Your task to perform on an android device: remove spam from my inbox in the gmail app Image 0: 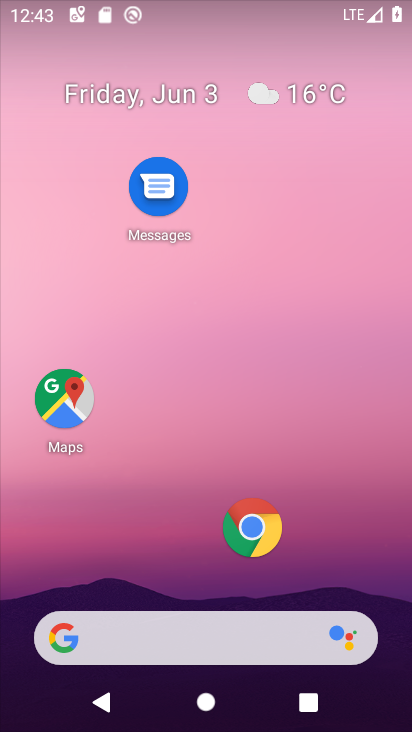
Step 0: drag from (194, 554) to (244, 101)
Your task to perform on an android device: remove spam from my inbox in the gmail app Image 1: 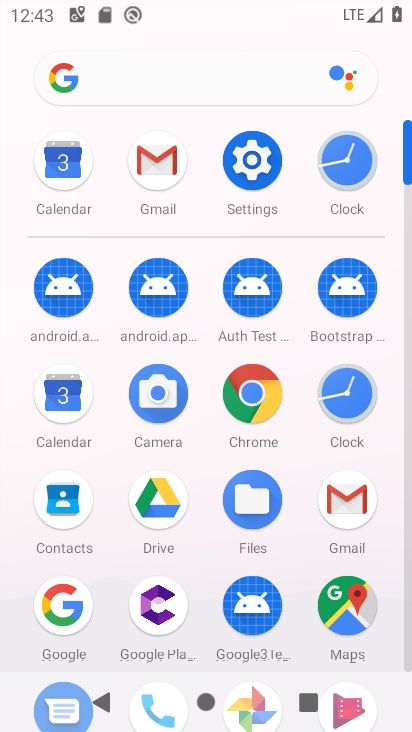
Step 1: click (164, 159)
Your task to perform on an android device: remove spam from my inbox in the gmail app Image 2: 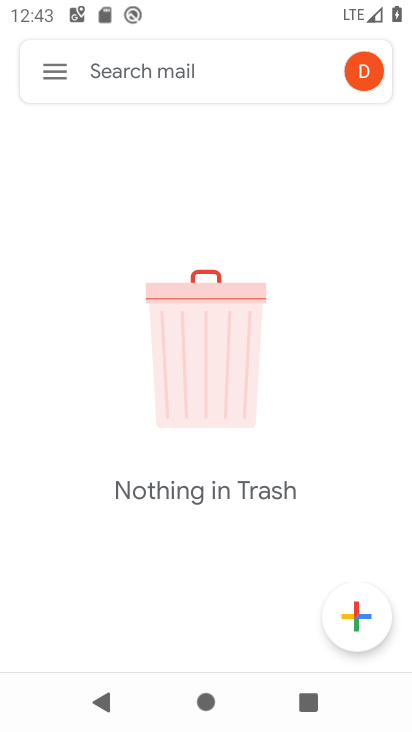
Step 2: click (52, 73)
Your task to perform on an android device: remove spam from my inbox in the gmail app Image 3: 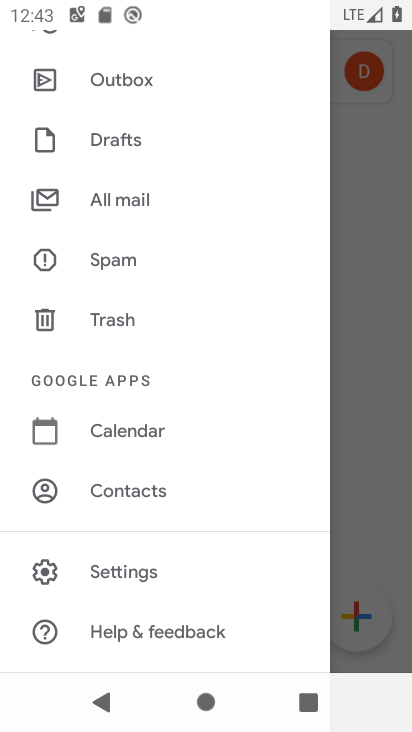
Step 3: click (133, 248)
Your task to perform on an android device: remove spam from my inbox in the gmail app Image 4: 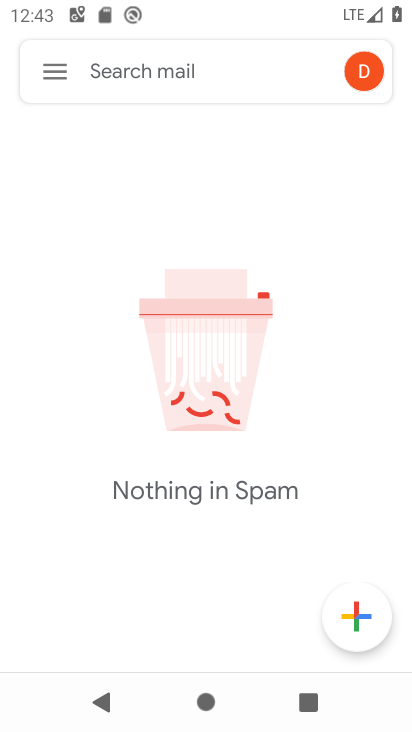
Step 4: task complete